Your task to perform on an android device: View the shopping cart on costco. Image 0: 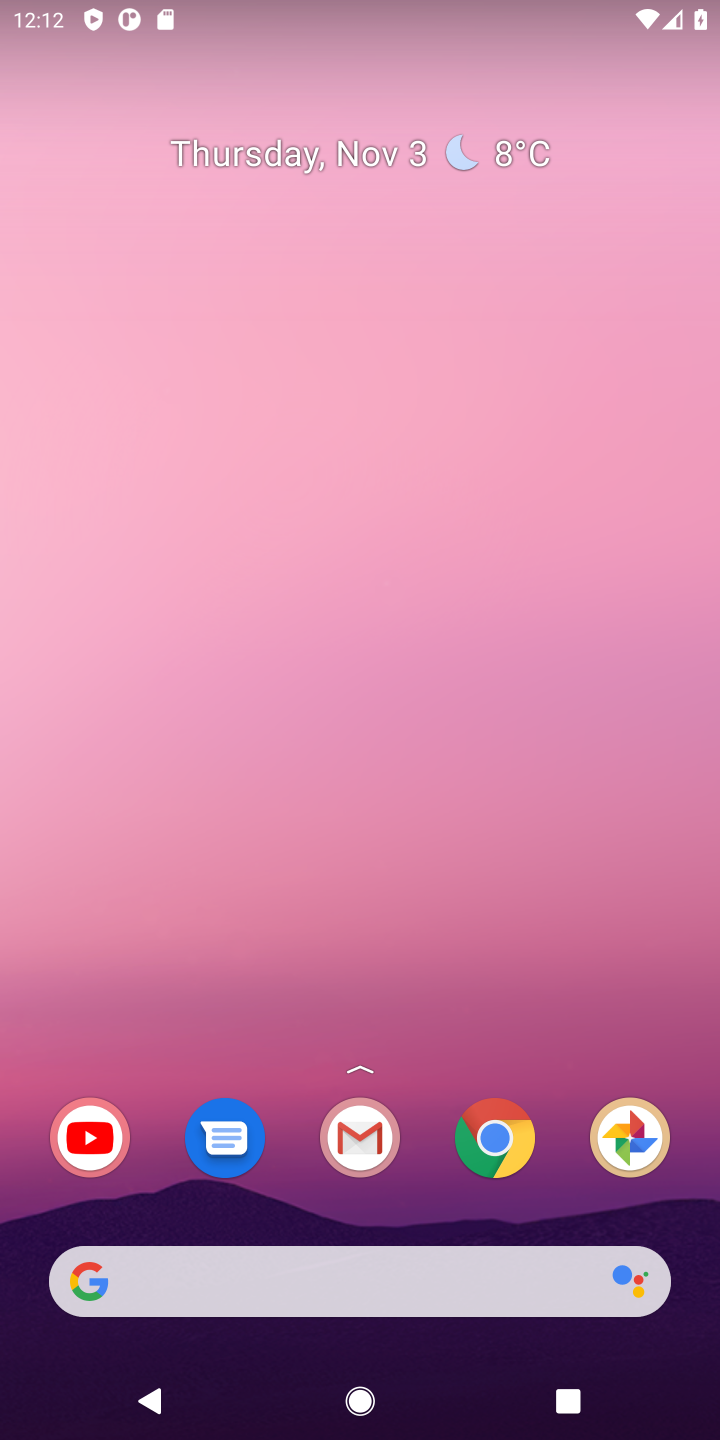
Step 0: click (478, 1114)
Your task to perform on an android device: View the shopping cart on costco. Image 1: 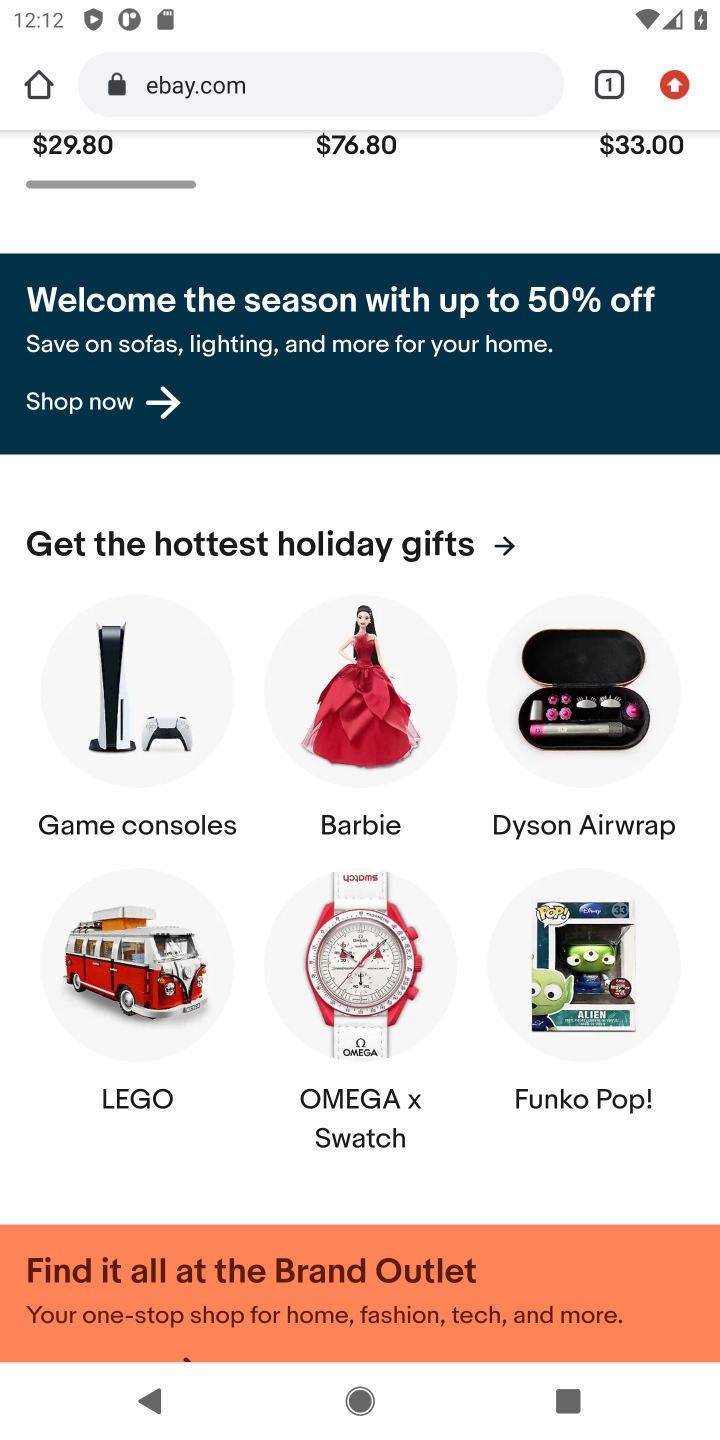
Step 1: click (327, 98)
Your task to perform on an android device: View the shopping cart on costco. Image 2: 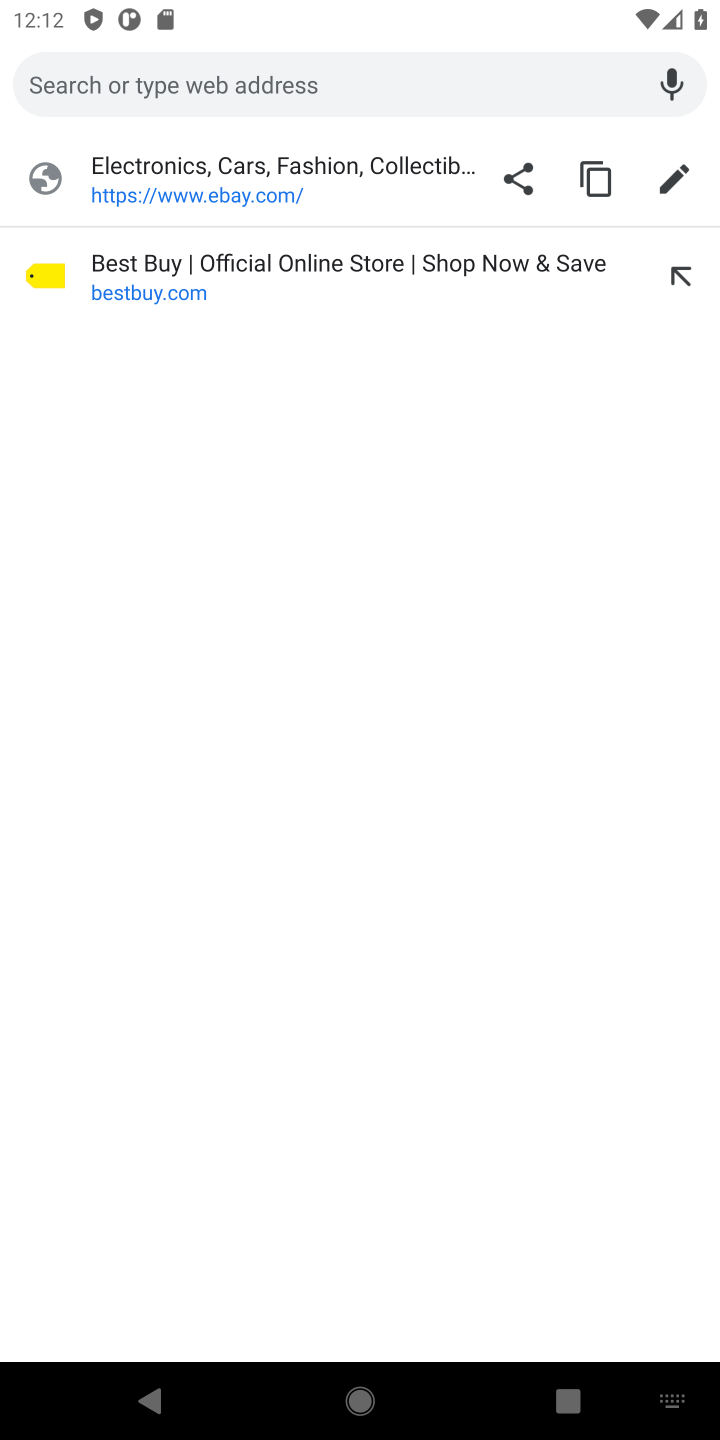
Step 2: type "costco"
Your task to perform on an android device: View the shopping cart on costco. Image 3: 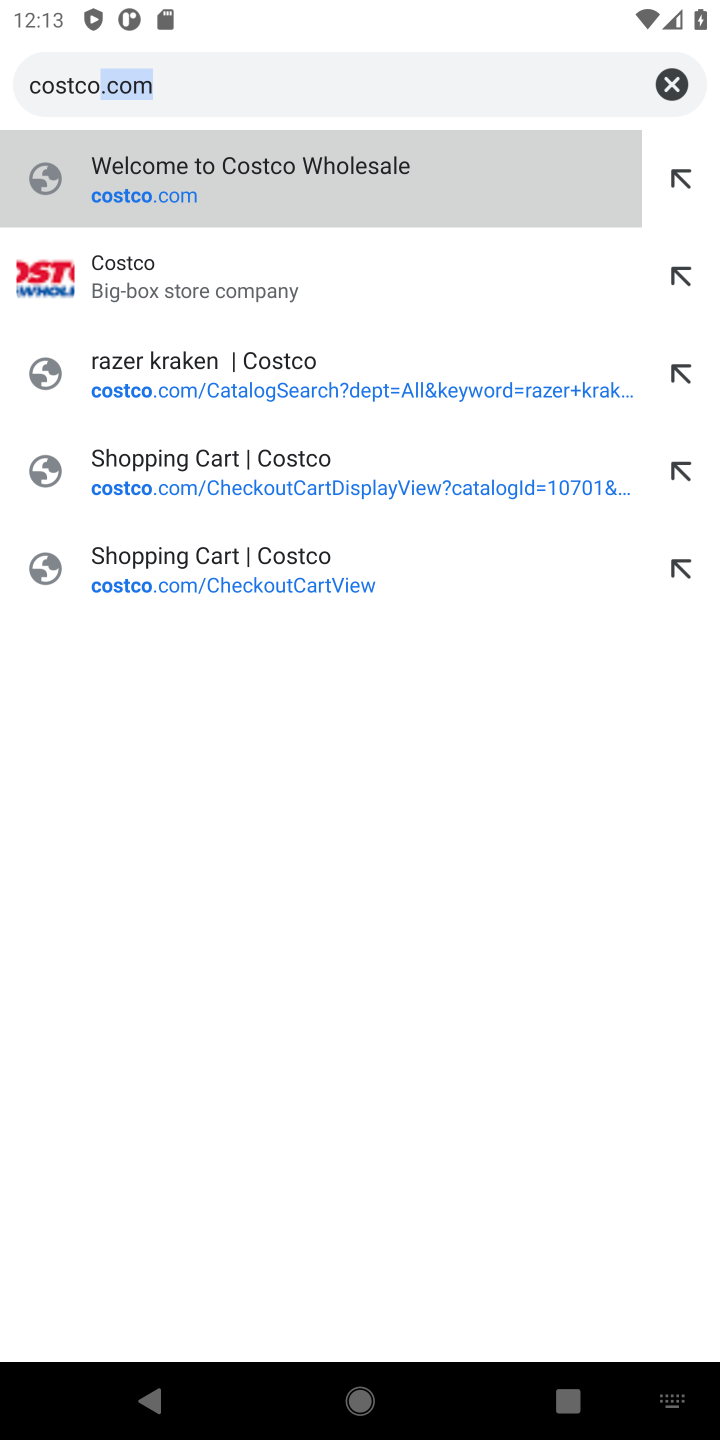
Step 3: click (27, 270)
Your task to perform on an android device: View the shopping cart on costco. Image 4: 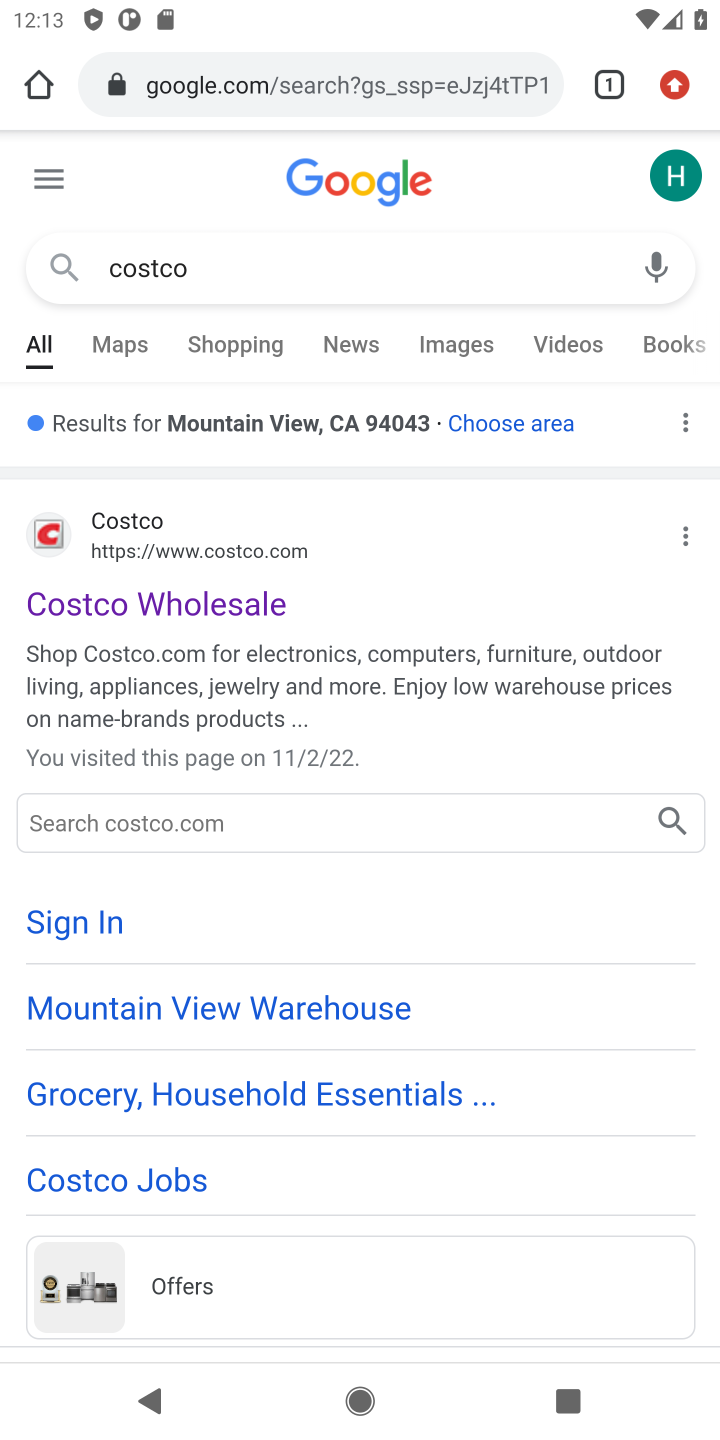
Step 4: click (188, 590)
Your task to perform on an android device: View the shopping cart on costco. Image 5: 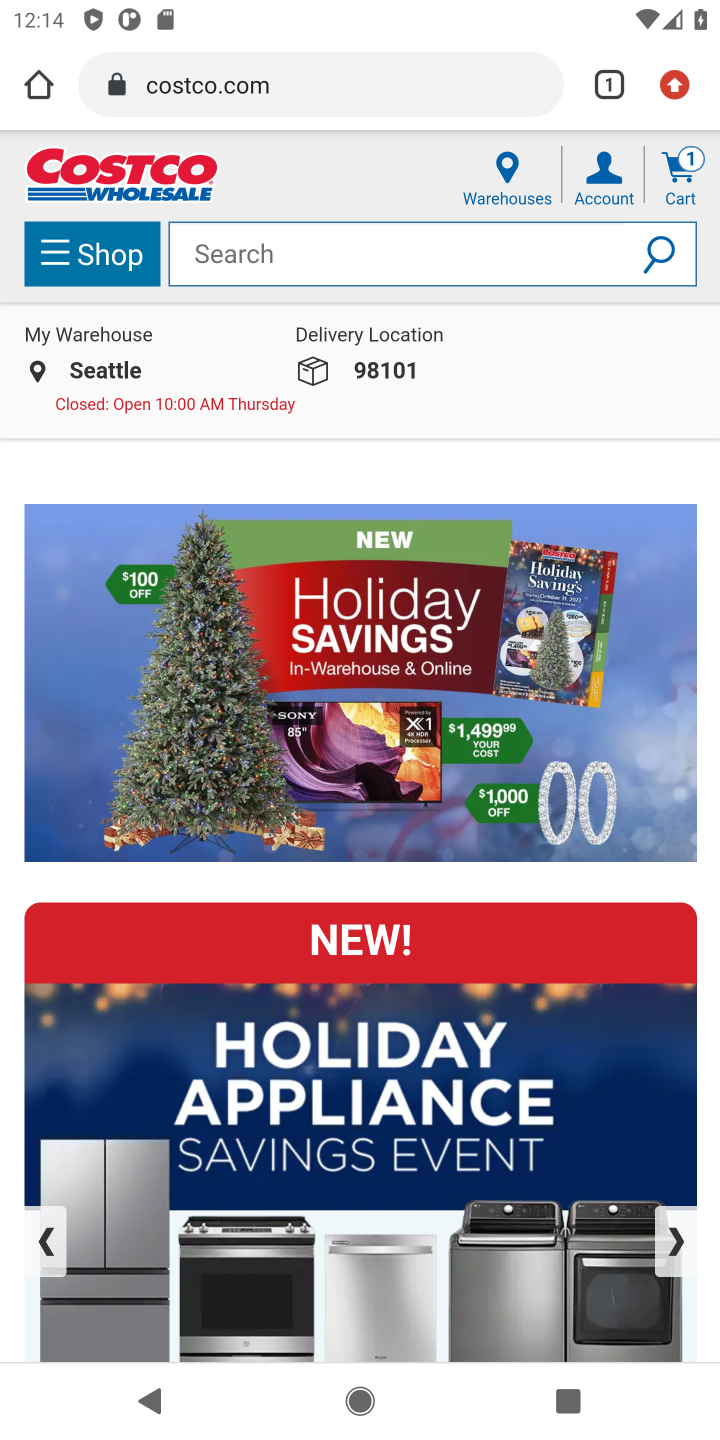
Step 5: click (679, 152)
Your task to perform on an android device: View the shopping cart on costco. Image 6: 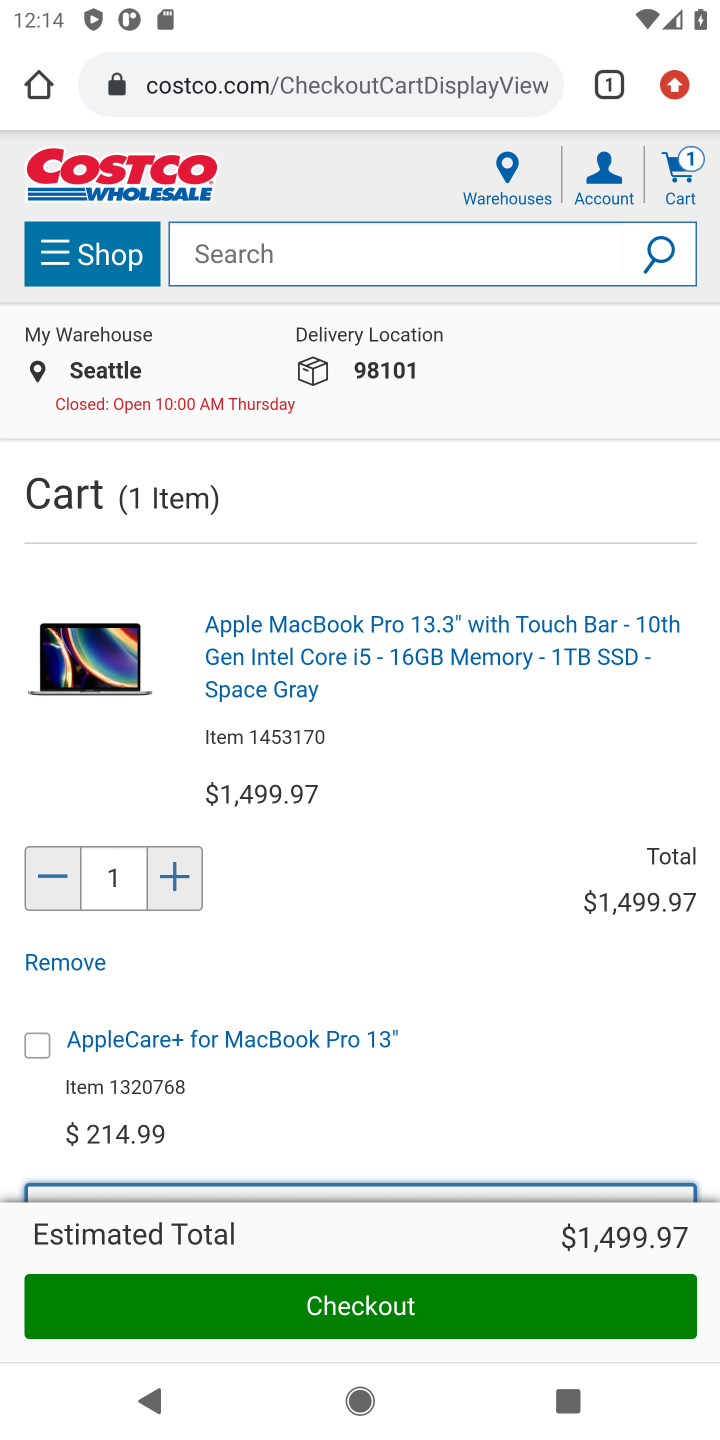
Step 6: task complete